Your task to perform on an android device: open app "Google Drive" (install if not already installed) Image 0: 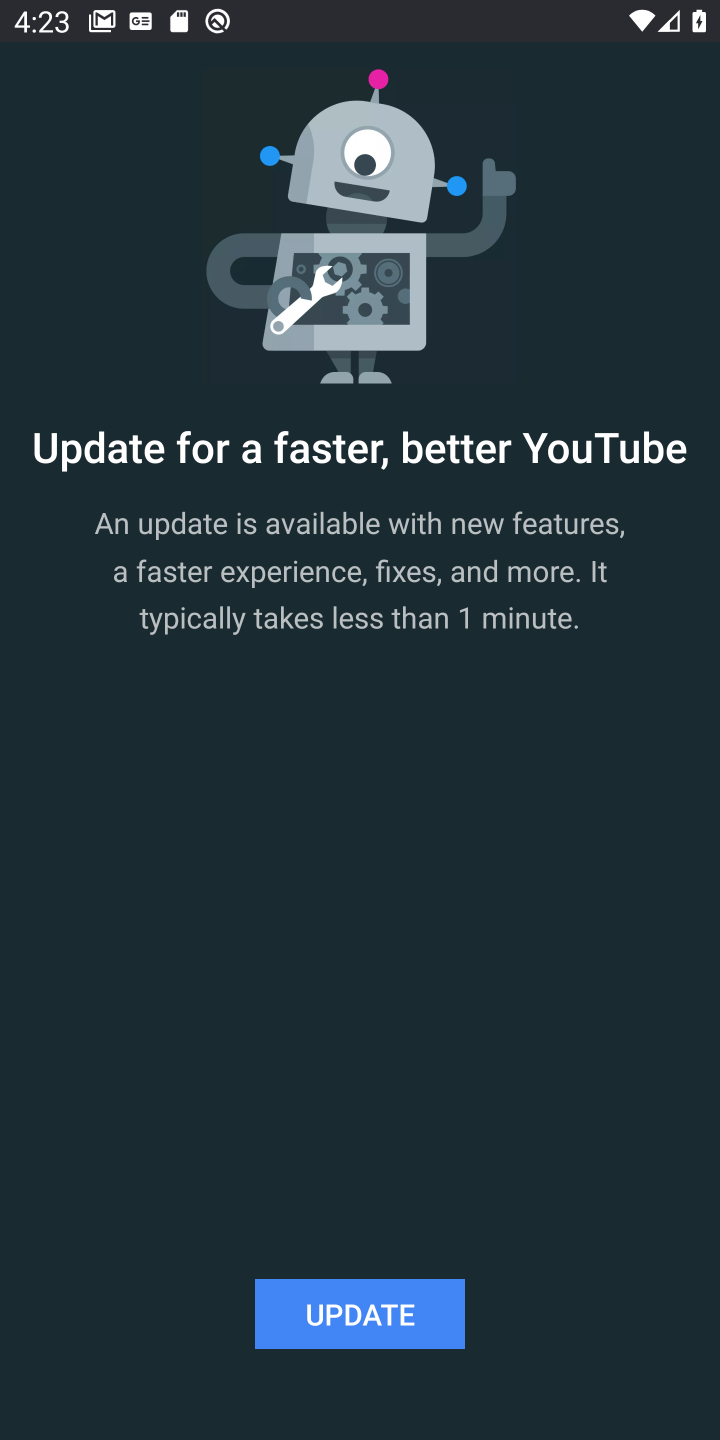
Step 0: press home button
Your task to perform on an android device: open app "Google Drive" (install if not already installed) Image 1: 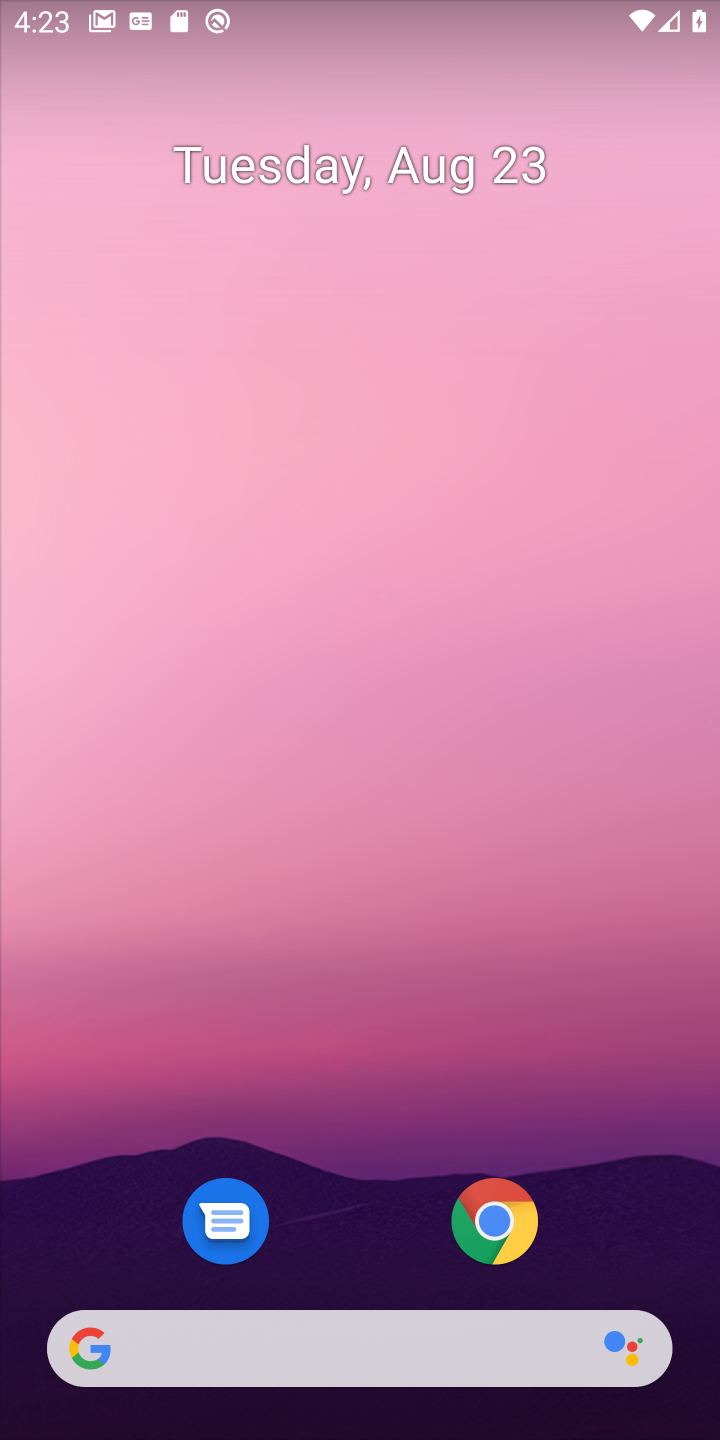
Step 1: click (332, 32)
Your task to perform on an android device: open app "Google Drive" (install if not already installed) Image 2: 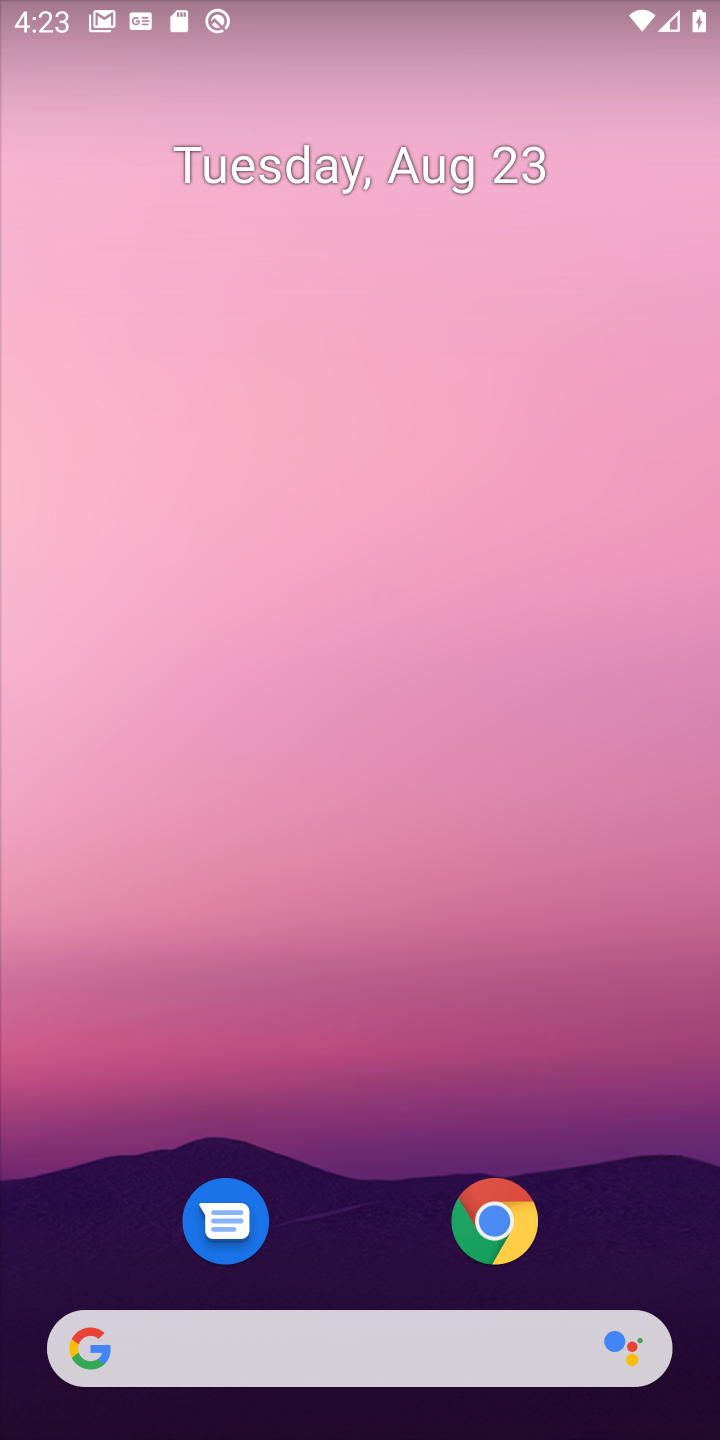
Step 2: drag from (327, 1231) to (328, 123)
Your task to perform on an android device: open app "Google Drive" (install if not already installed) Image 3: 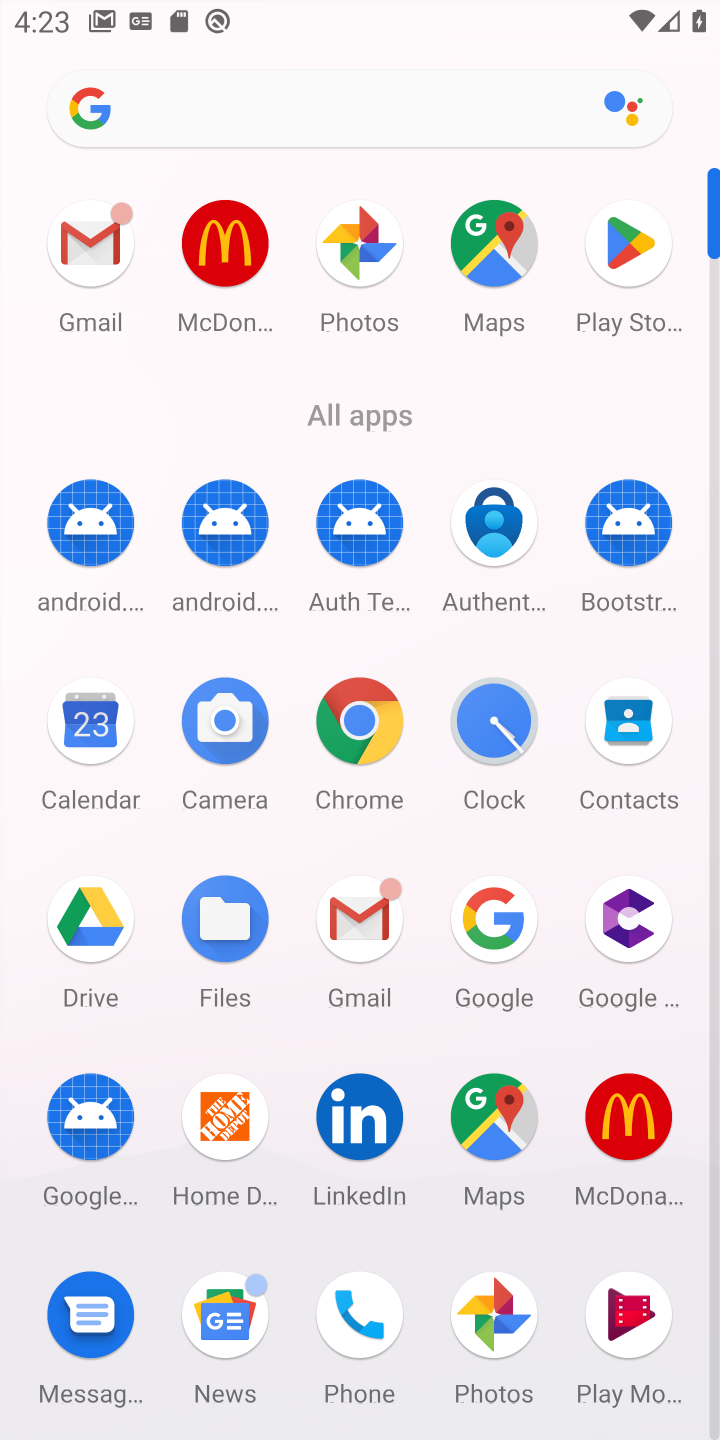
Step 3: click (642, 254)
Your task to perform on an android device: open app "Google Drive" (install if not already installed) Image 4: 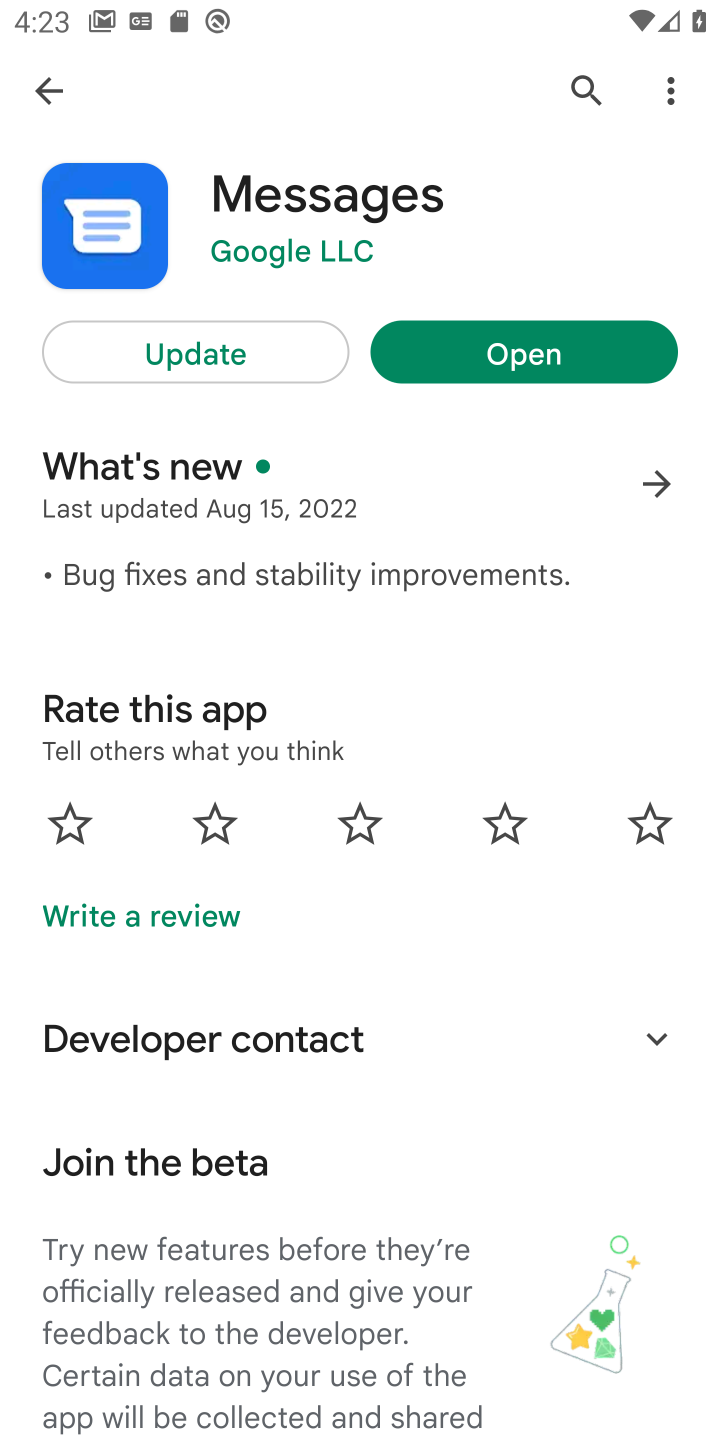
Step 4: click (45, 84)
Your task to perform on an android device: open app "Google Drive" (install if not already installed) Image 5: 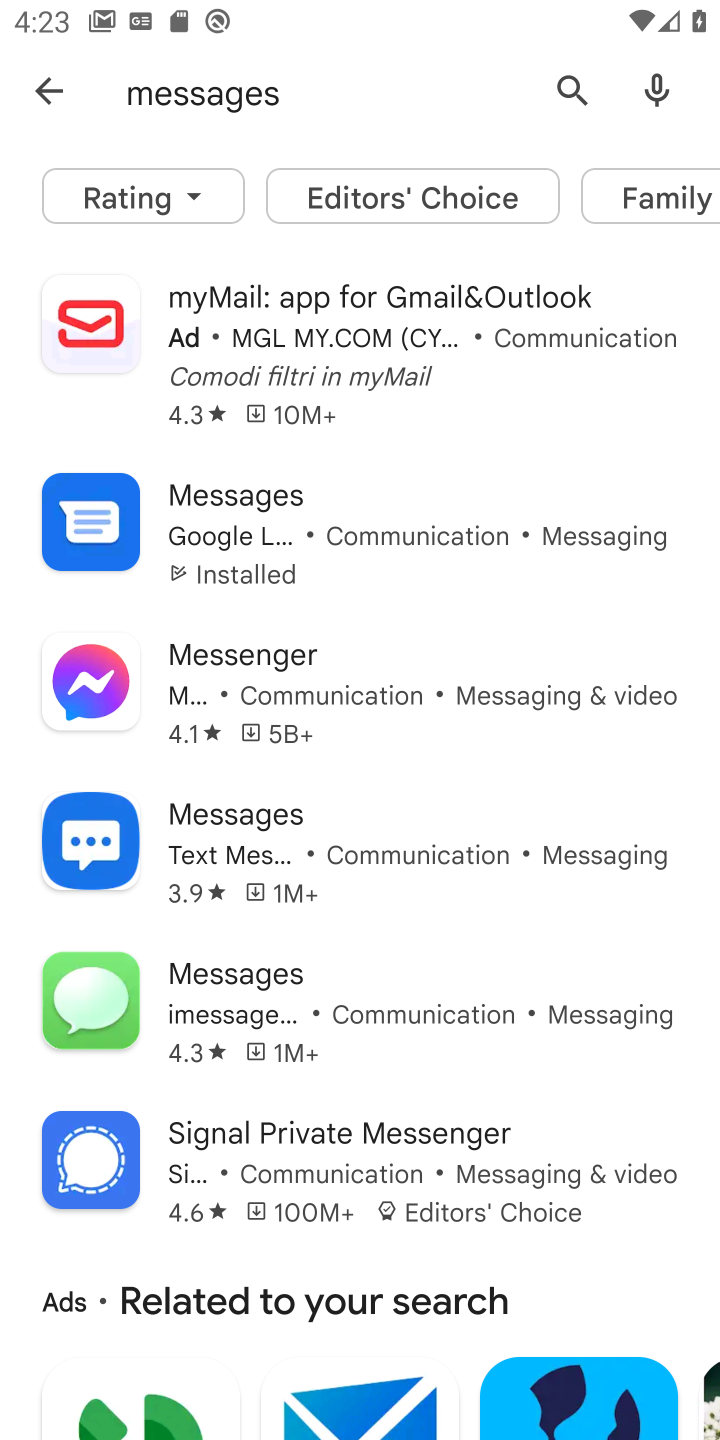
Step 5: click (37, 97)
Your task to perform on an android device: open app "Google Drive" (install if not already installed) Image 6: 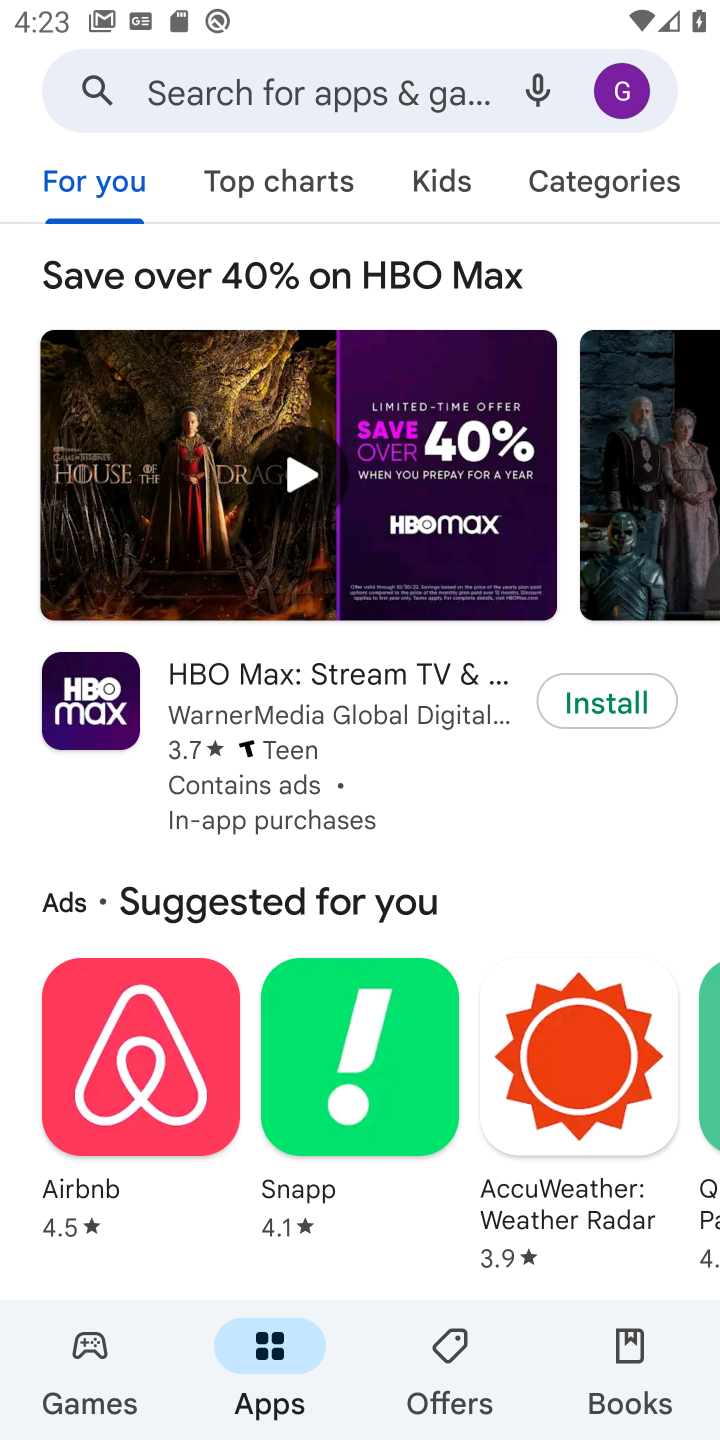
Step 6: click (222, 97)
Your task to perform on an android device: open app "Google Drive" (install if not already installed) Image 7: 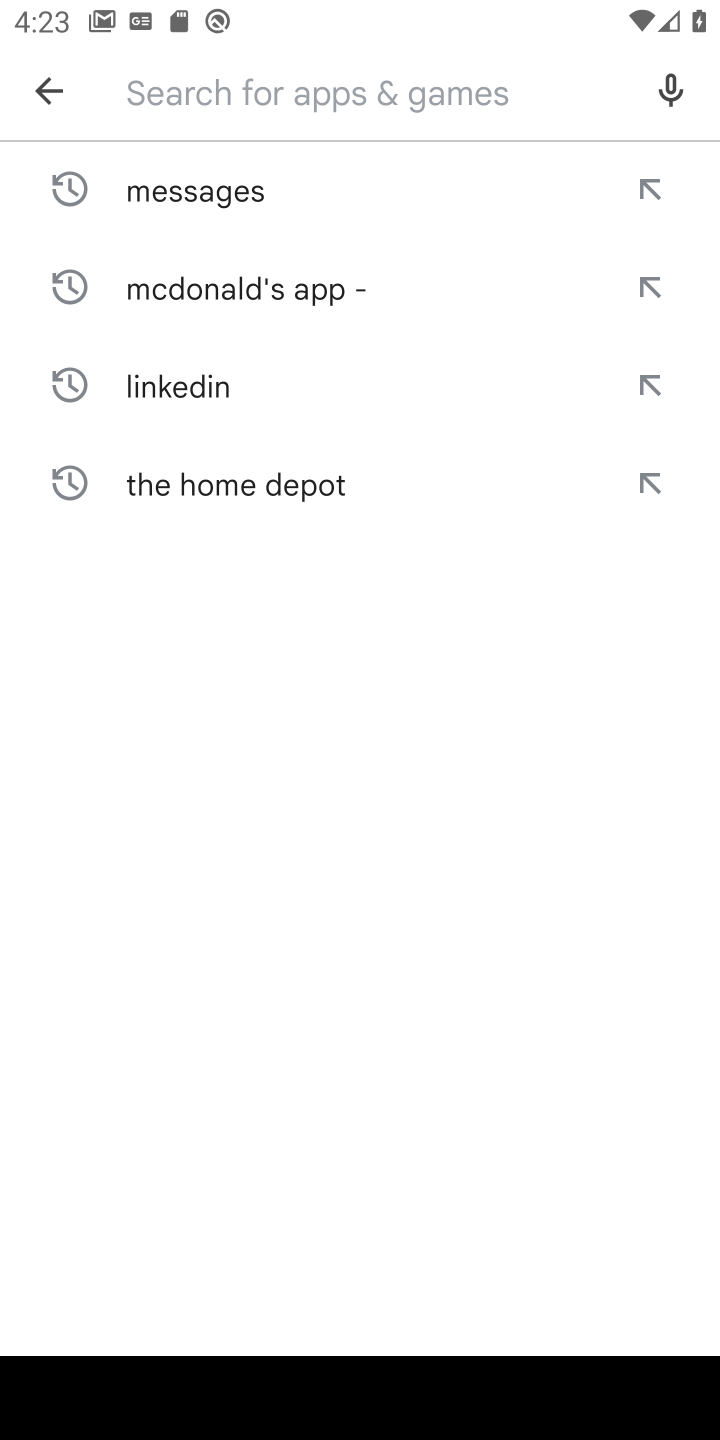
Step 7: type "Google Drive"
Your task to perform on an android device: open app "Google Drive" (install if not already installed) Image 8: 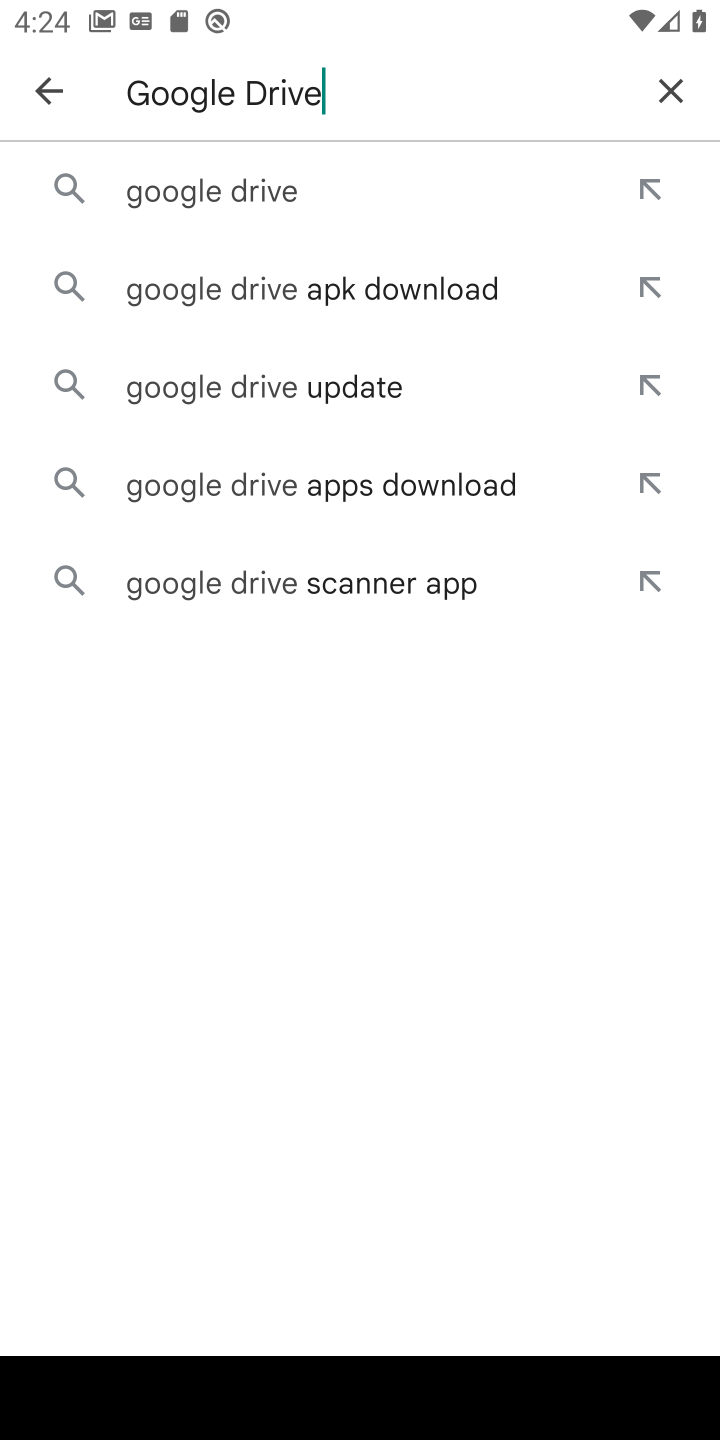
Step 8: click (244, 206)
Your task to perform on an android device: open app "Google Drive" (install if not already installed) Image 9: 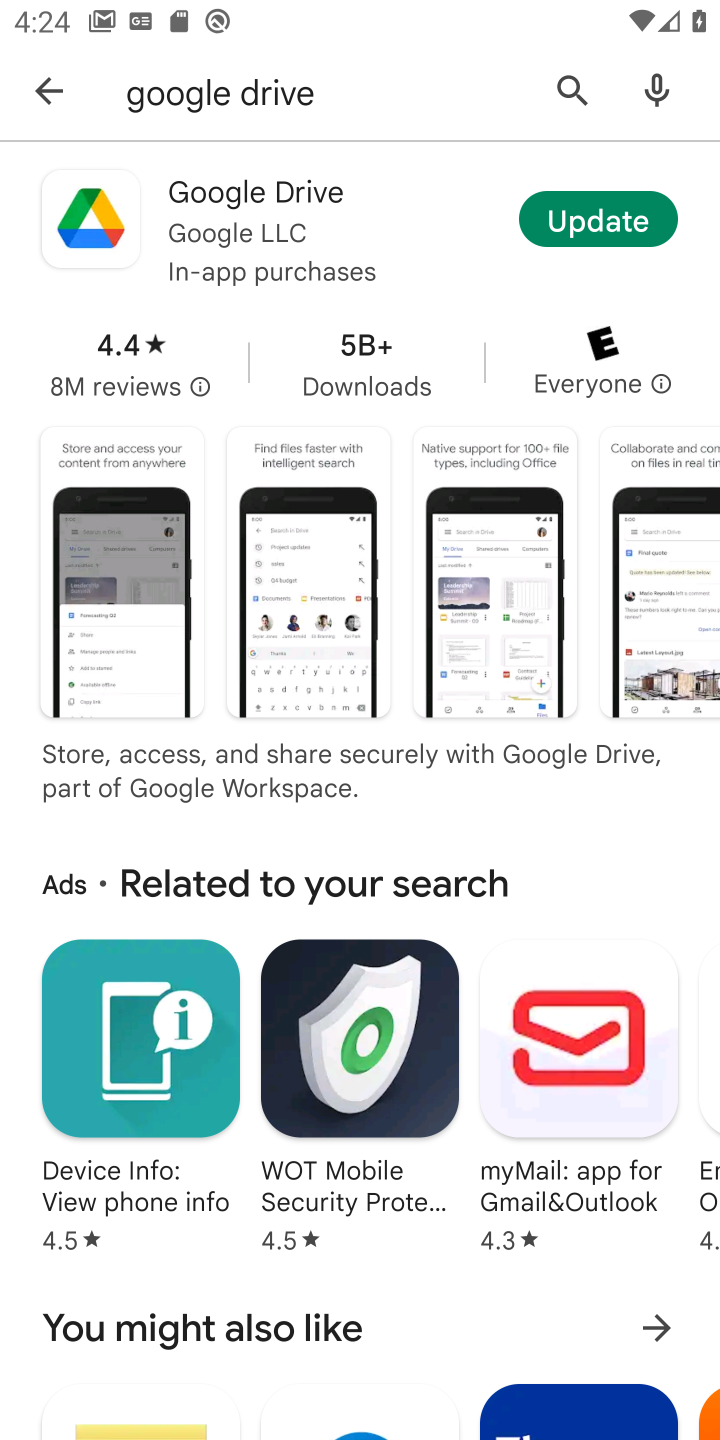
Step 9: click (600, 214)
Your task to perform on an android device: open app "Google Drive" (install if not already installed) Image 10: 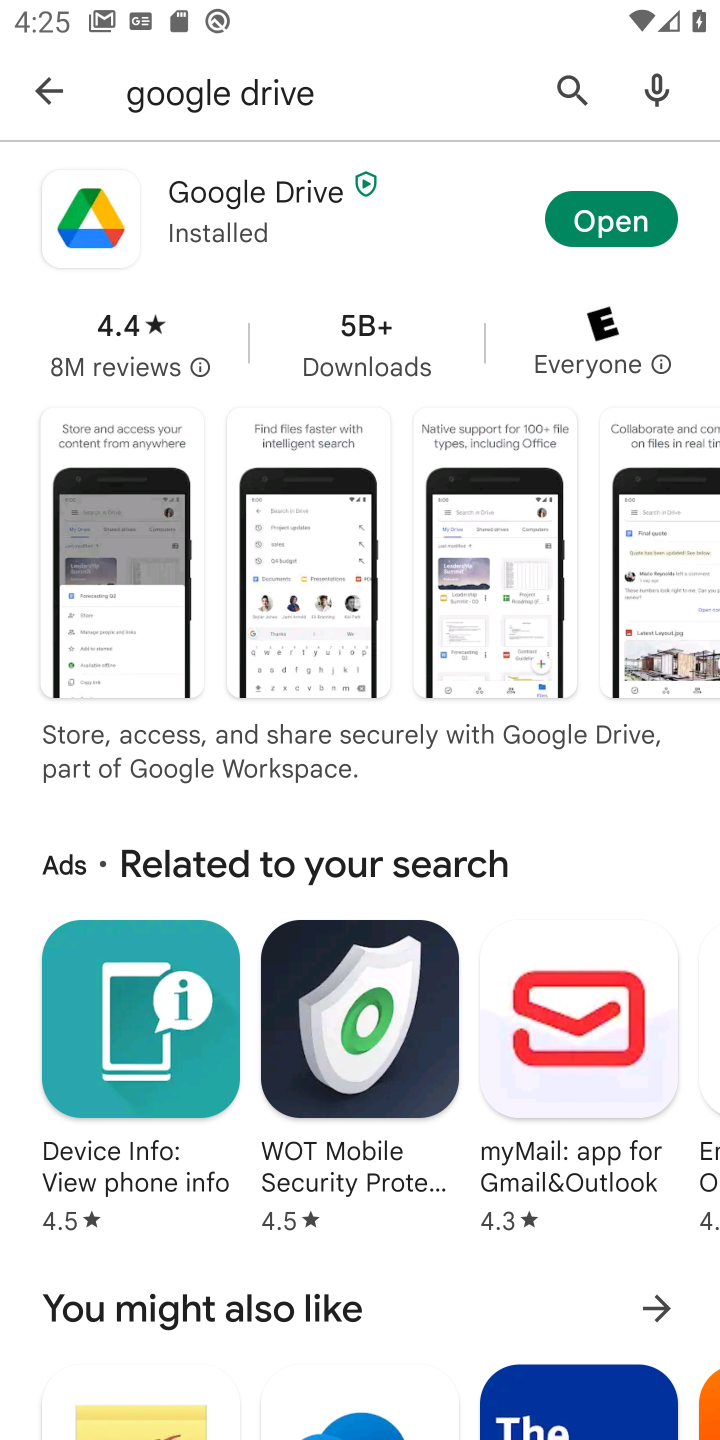
Step 10: click (633, 218)
Your task to perform on an android device: open app "Google Drive" (install if not already installed) Image 11: 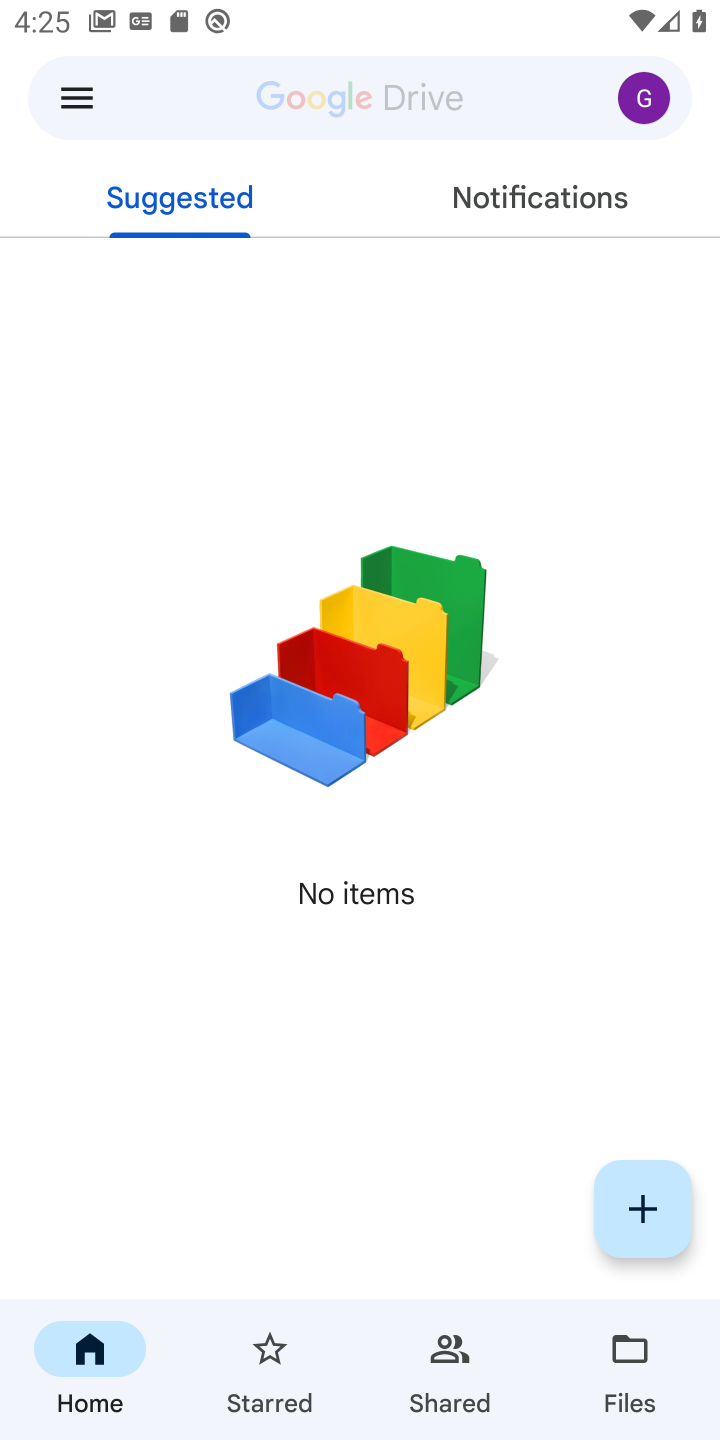
Step 11: task complete